Your task to perform on an android device: turn off wifi Image 0: 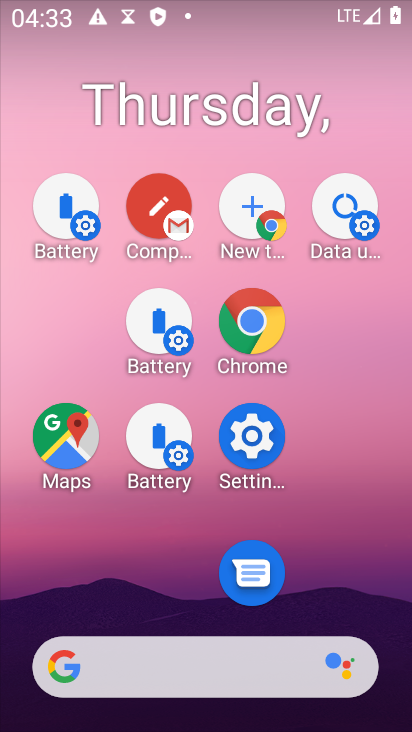
Step 0: drag from (257, 730) to (178, 182)
Your task to perform on an android device: turn off wifi Image 1: 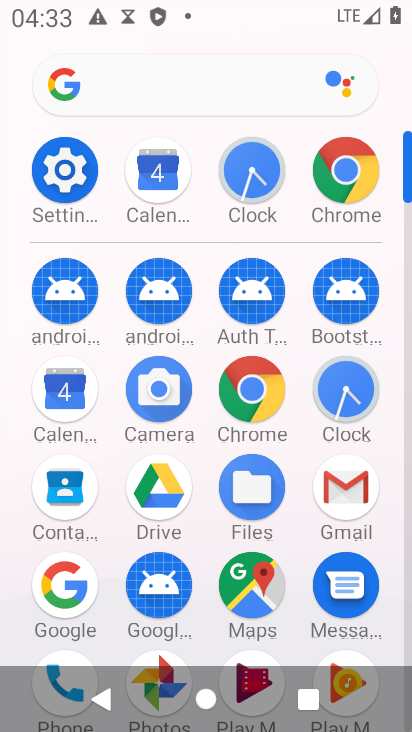
Step 1: click (63, 175)
Your task to perform on an android device: turn off wifi Image 2: 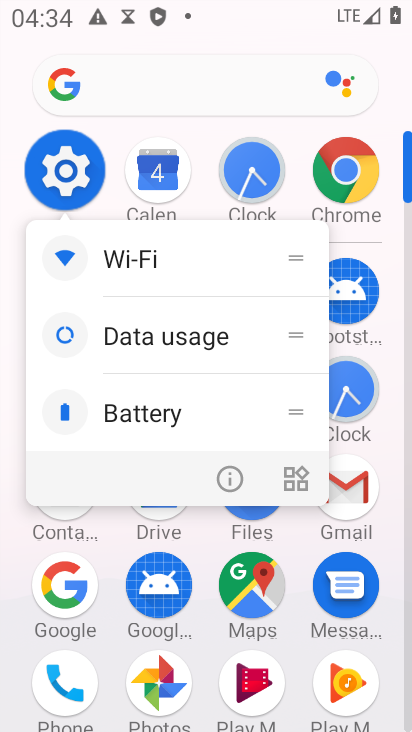
Step 2: click (84, 168)
Your task to perform on an android device: turn off wifi Image 3: 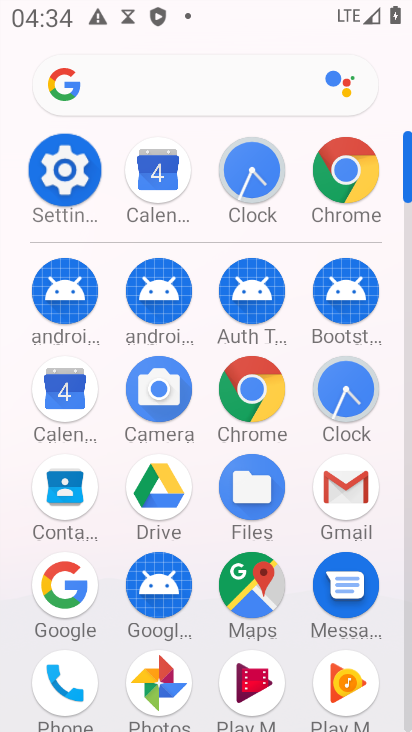
Step 3: click (179, 253)
Your task to perform on an android device: turn off wifi Image 4: 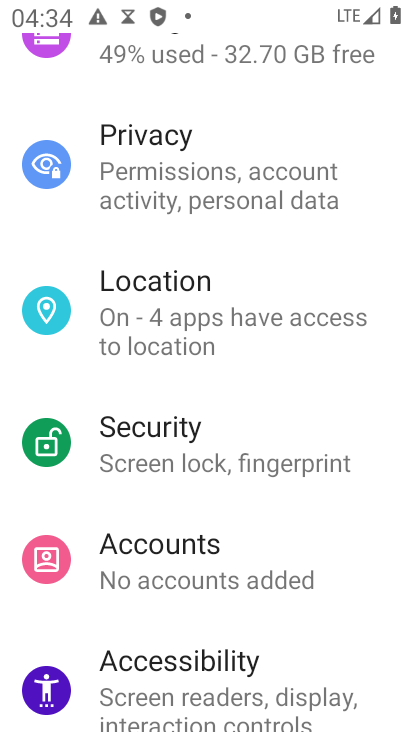
Step 4: task complete